Your task to perform on an android device: turn off priority inbox in the gmail app Image 0: 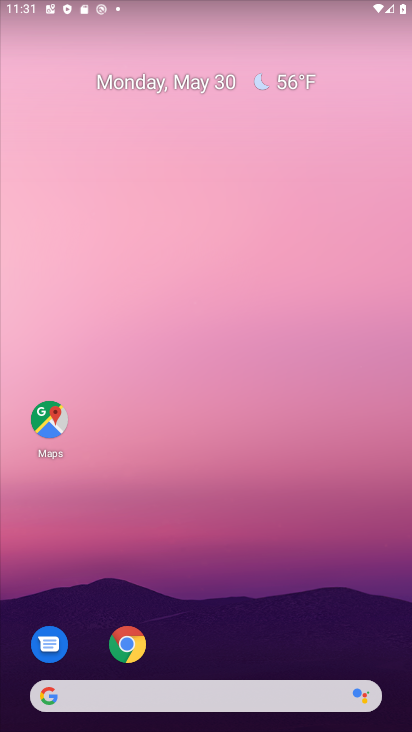
Step 0: click (124, 649)
Your task to perform on an android device: turn off priority inbox in the gmail app Image 1: 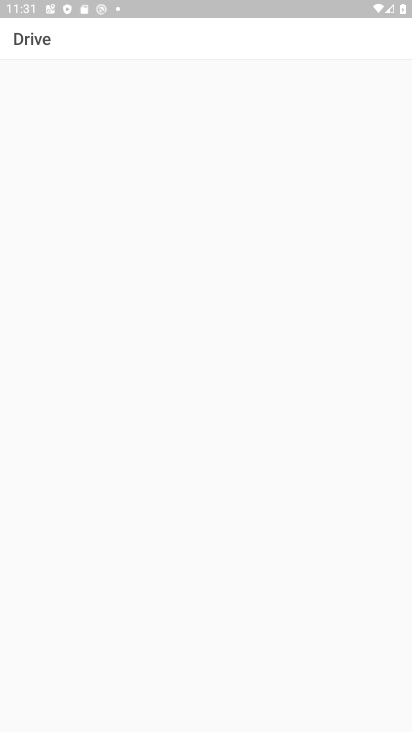
Step 1: click (141, 645)
Your task to perform on an android device: turn off priority inbox in the gmail app Image 2: 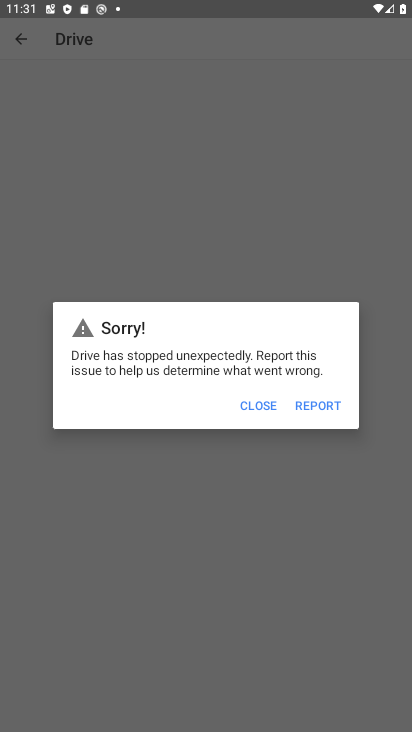
Step 2: press home button
Your task to perform on an android device: turn off priority inbox in the gmail app Image 3: 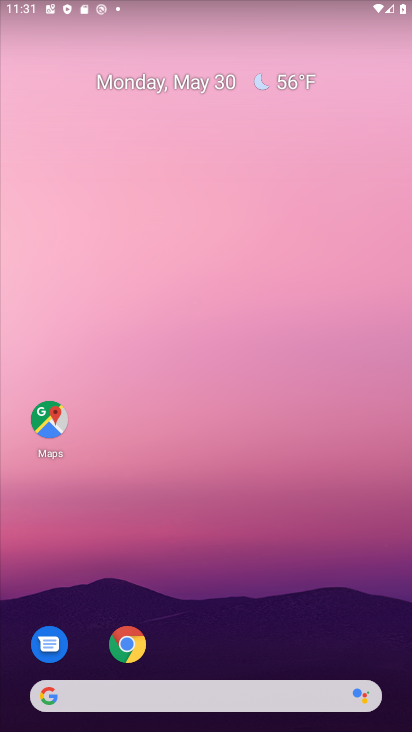
Step 3: drag from (176, 667) to (240, 56)
Your task to perform on an android device: turn off priority inbox in the gmail app Image 4: 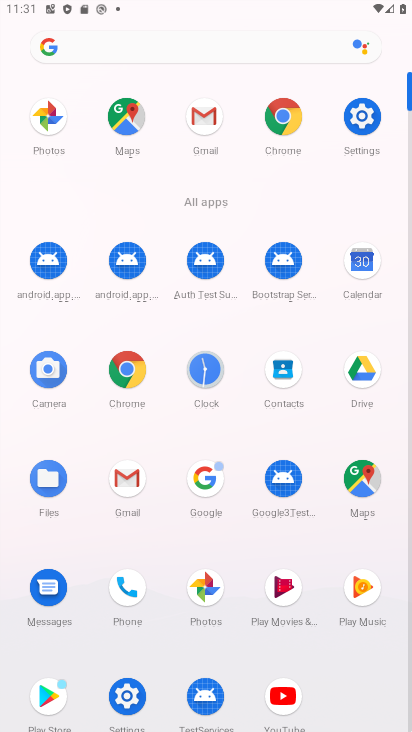
Step 4: click (127, 489)
Your task to perform on an android device: turn off priority inbox in the gmail app Image 5: 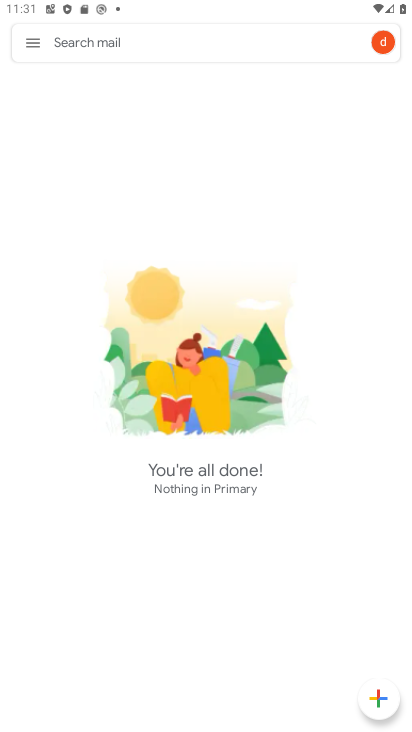
Step 5: click (42, 41)
Your task to perform on an android device: turn off priority inbox in the gmail app Image 6: 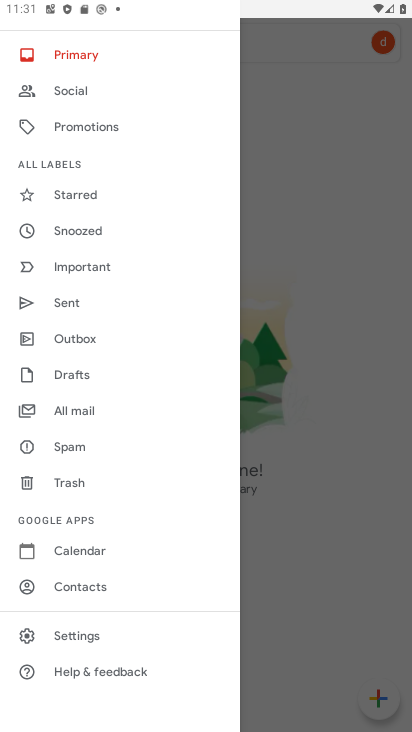
Step 6: click (73, 637)
Your task to perform on an android device: turn off priority inbox in the gmail app Image 7: 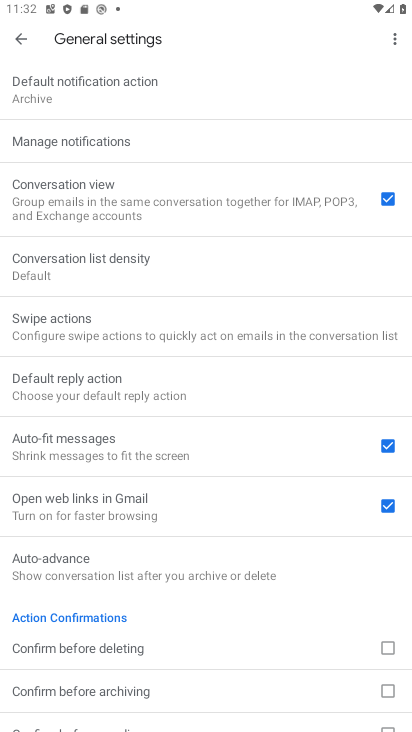
Step 7: click (10, 29)
Your task to perform on an android device: turn off priority inbox in the gmail app Image 8: 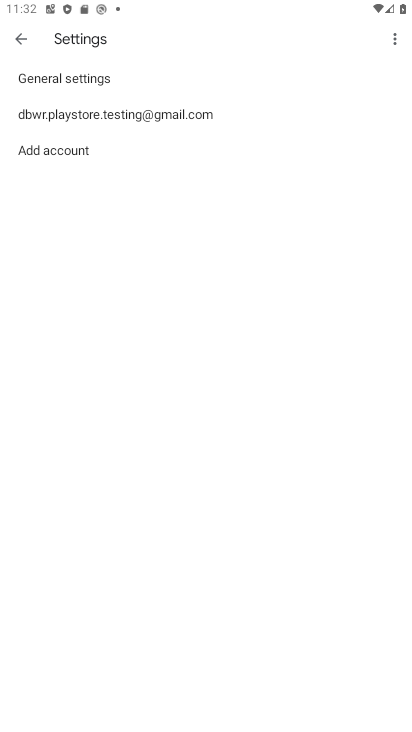
Step 8: click (125, 112)
Your task to perform on an android device: turn off priority inbox in the gmail app Image 9: 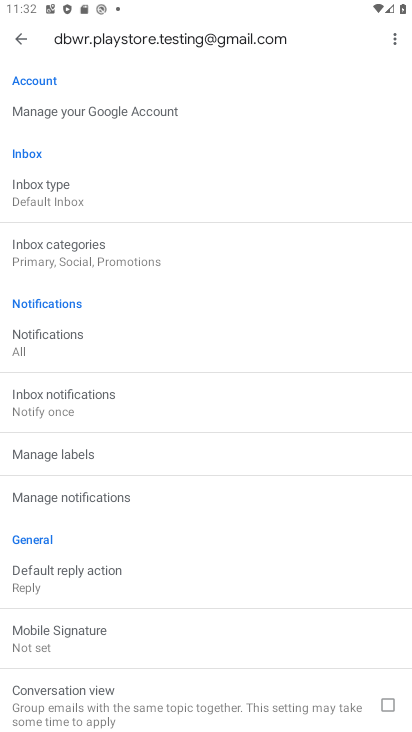
Step 9: click (70, 201)
Your task to perform on an android device: turn off priority inbox in the gmail app Image 10: 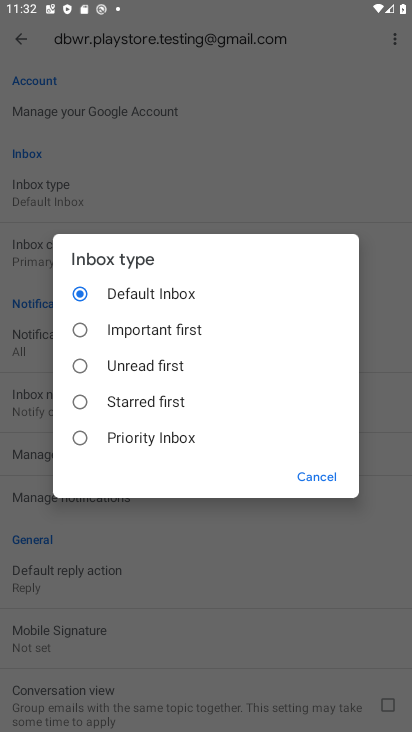
Step 10: task complete